Your task to perform on an android device: What is the news today? Image 0: 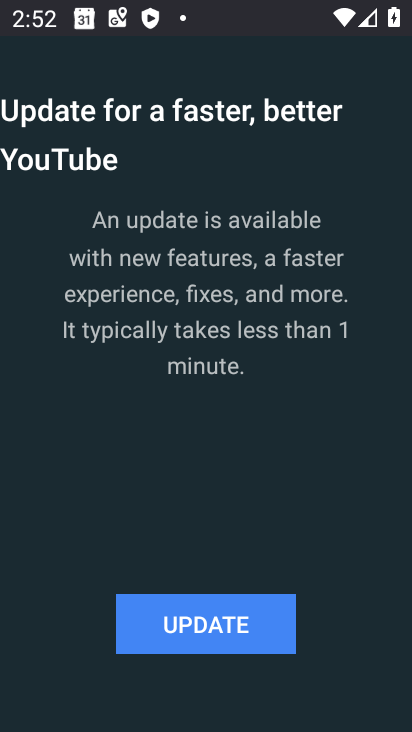
Step 0: press home button
Your task to perform on an android device: What is the news today? Image 1: 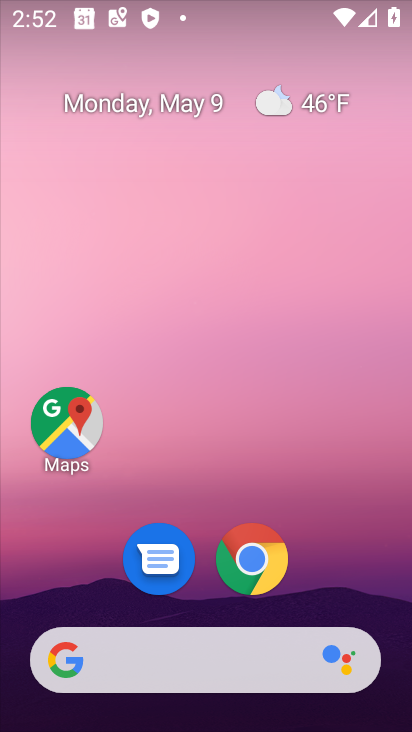
Step 1: drag from (323, 597) to (337, 179)
Your task to perform on an android device: What is the news today? Image 2: 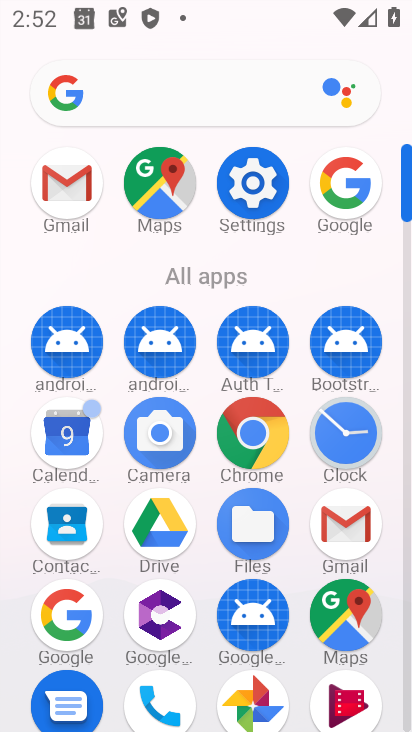
Step 2: click (355, 187)
Your task to perform on an android device: What is the news today? Image 3: 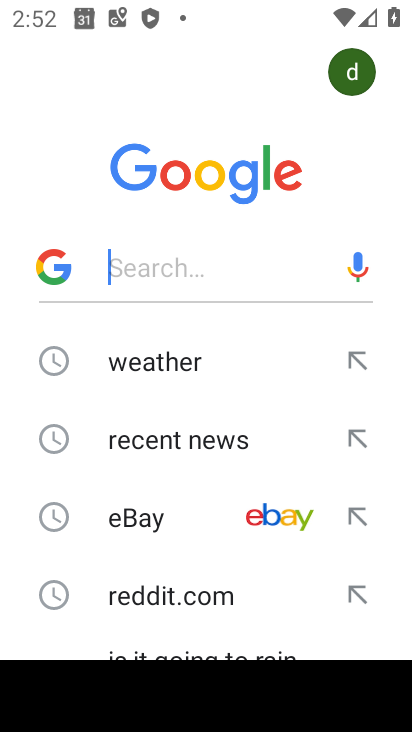
Step 3: drag from (181, 533) to (201, 236)
Your task to perform on an android device: What is the news today? Image 4: 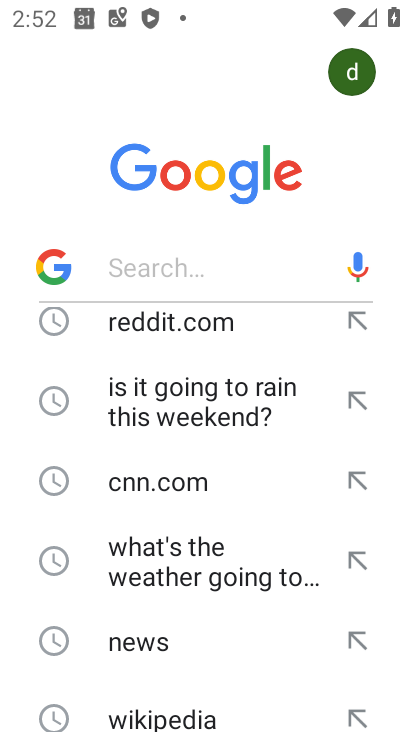
Step 4: drag from (196, 342) to (198, 637)
Your task to perform on an android device: What is the news today? Image 5: 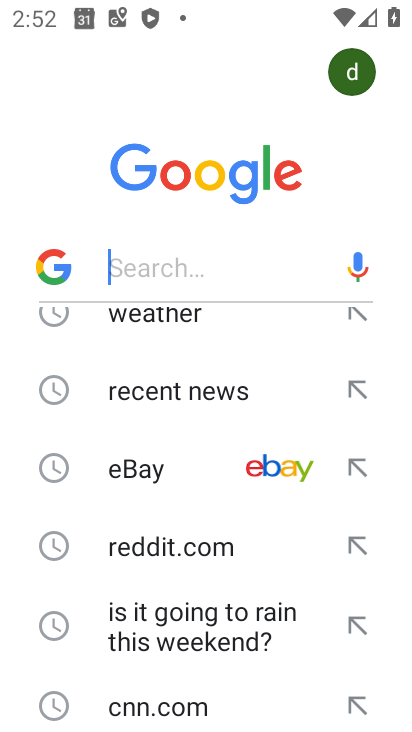
Step 5: click (193, 394)
Your task to perform on an android device: What is the news today? Image 6: 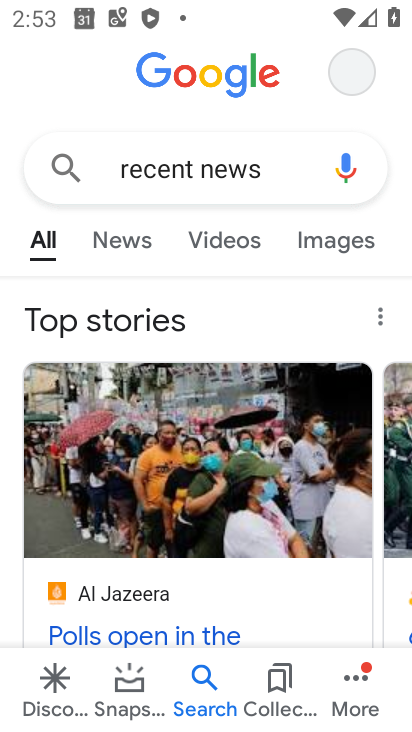
Step 6: task complete